Your task to perform on an android device: open device folders in google photos Image 0: 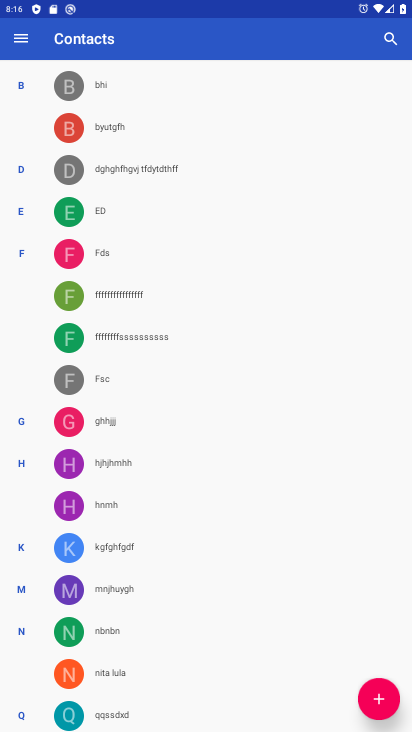
Step 0: press home button
Your task to perform on an android device: open device folders in google photos Image 1: 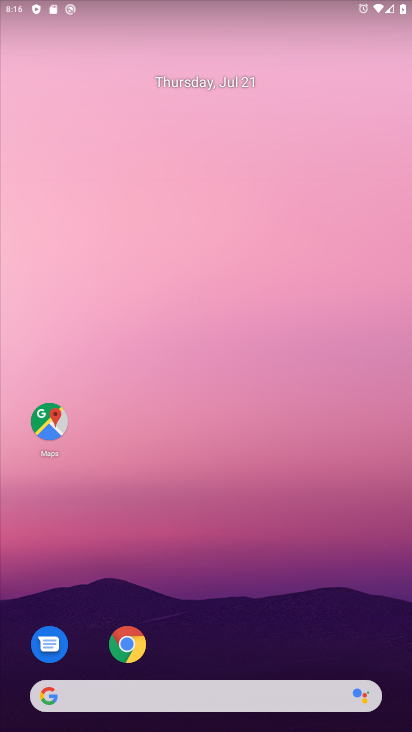
Step 1: drag from (328, 609) to (325, 106)
Your task to perform on an android device: open device folders in google photos Image 2: 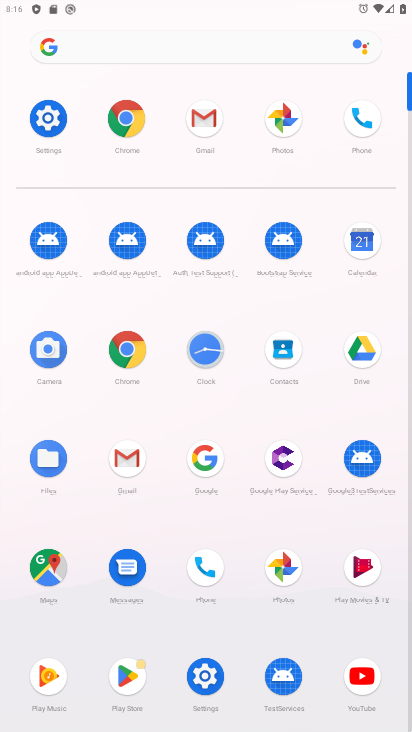
Step 2: click (282, 121)
Your task to perform on an android device: open device folders in google photos Image 3: 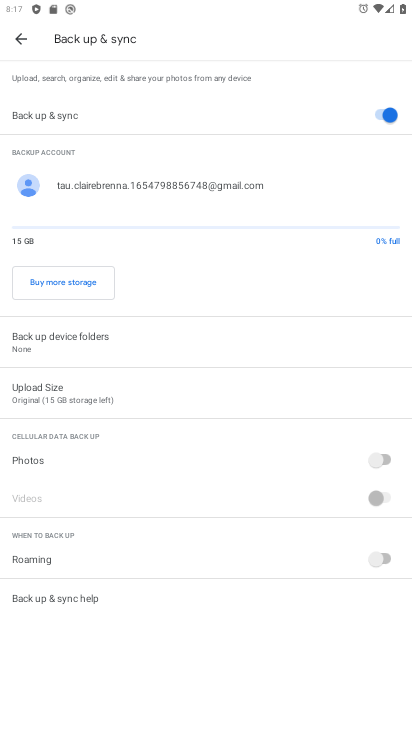
Step 3: press back button
Your task to perform on an android device: open device folders in google photos Image 4: 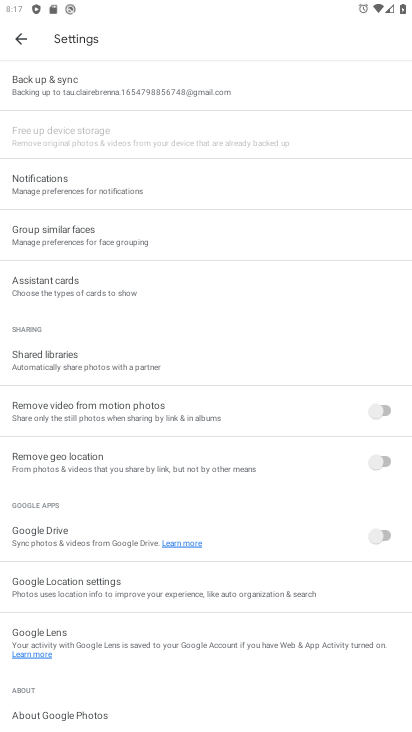
Step 4: press back button
Your task to perform on an android device: open device folders in google photos Image 5: 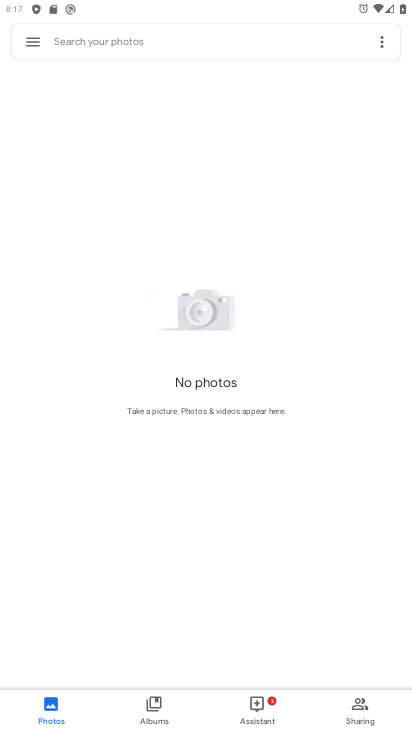
Step 5: click (38, 46)
Your task to perform on an android device: open device folders in google photos Image 6: 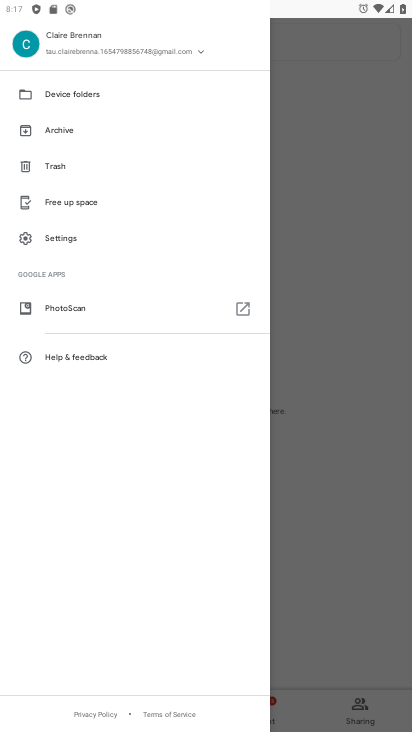
Step 6: click (104, 89)
Your task to perform on an android device: open device folders in google photos Image 7: 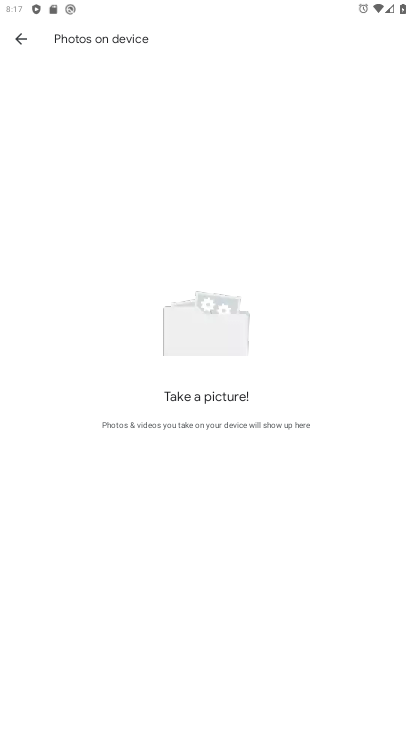
Step 7: task complete